Your task to perform on an android device: Do I have any events this weekend? Image 0: 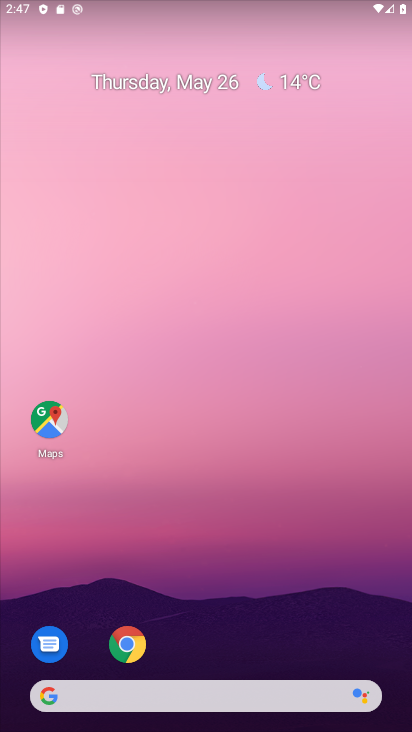
Step 0: drag from (241, 588) to (260, 193)
Your task to perform on an android device: Do I have any events this weekend? Image 1: 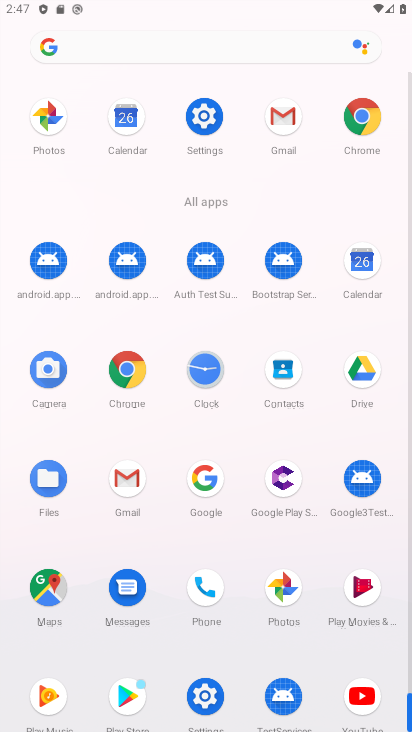
Step 1: click (360, 263)
Your task to perform on an android device: Do I have any events this weekend? Image 2: 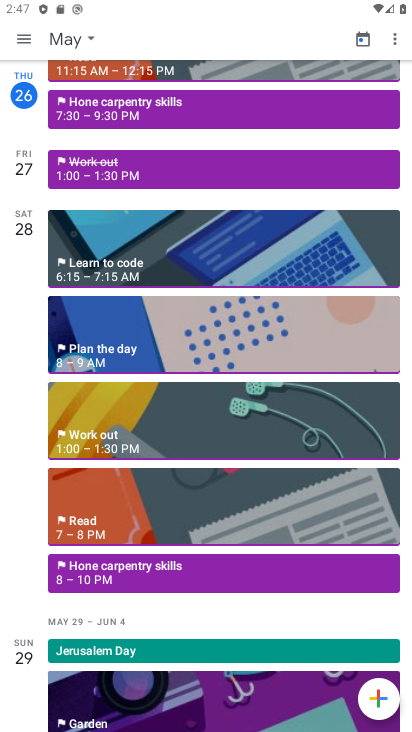
Step 2: task complete